Your task to perform on an android device: toggle airplane mode Image 0: 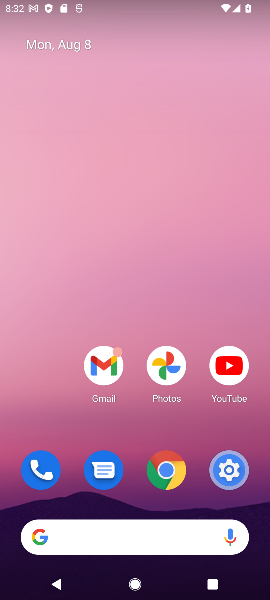
Step 0: drag from (155, 506) to (153, 232)
Your task to perform on an android device: toggle airplane mode Image 1: 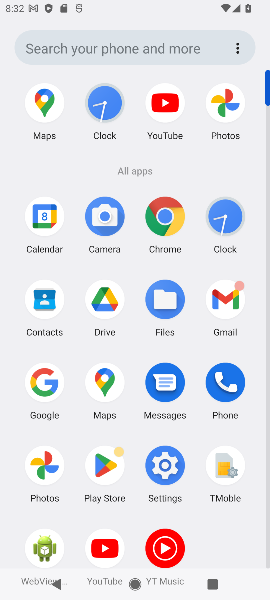
Step 1: click (160, 465)
Your task to perform on an android device: toggle airplane mode Image 2: 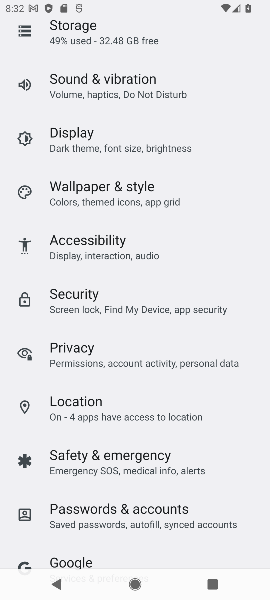
Step 2: drag from (117, 37) to (115, 420)
Your task to perform on an android device: toggle airplane mode Image 3: 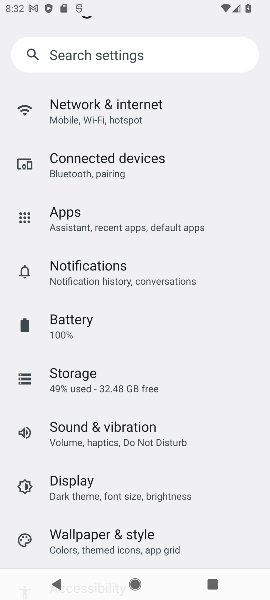
Step 3: click (91, 107)
Your task to perform on an android device: toggle airplane mode Image 4: 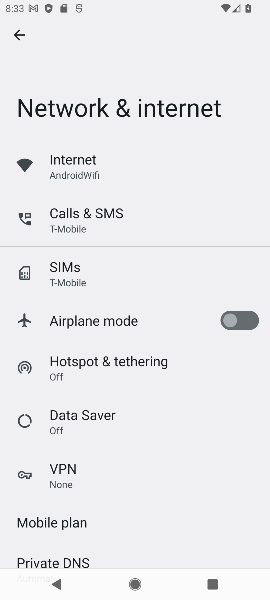
Step 4: click (249, 320)
Your task to perform on an android device: toggle airplane mode Image 5: 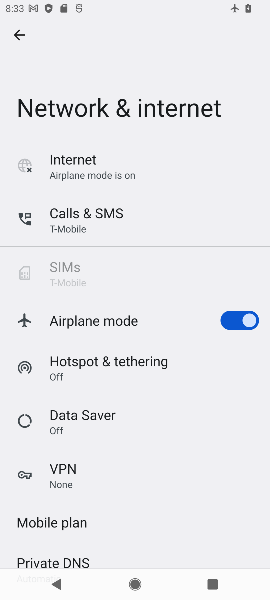
Step 5: task complete